Your task to perform on an android device: toggle location history Image 0: 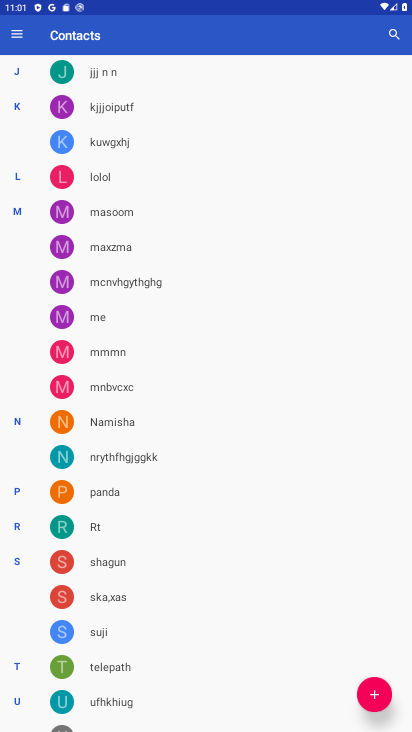
Step 0: press home button
Your task to perform on an android device: toggle location history Image 1: 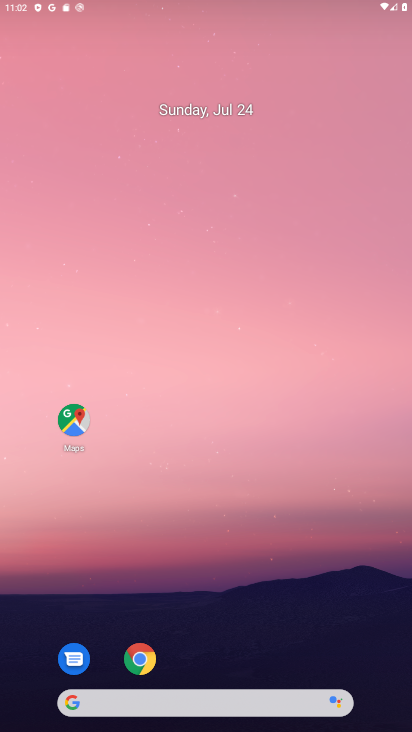
Step 1: drag from (123, 673) to (145, 203)
Your task to perform on an android device: toggle location history Image 2: 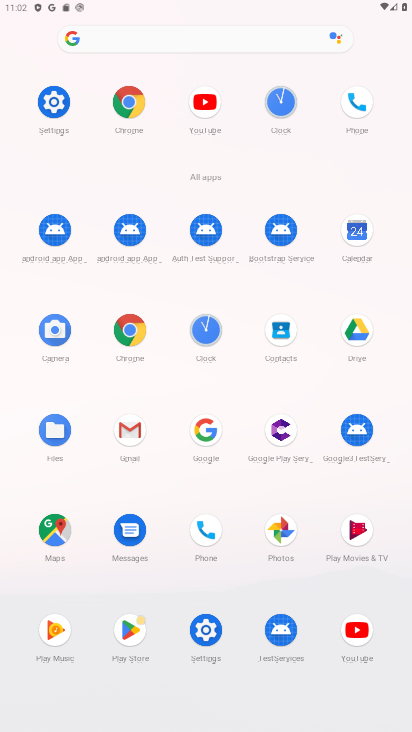
Step 2: click (57, 111)
Your task to perform on an android device: toggle location history Image 3: 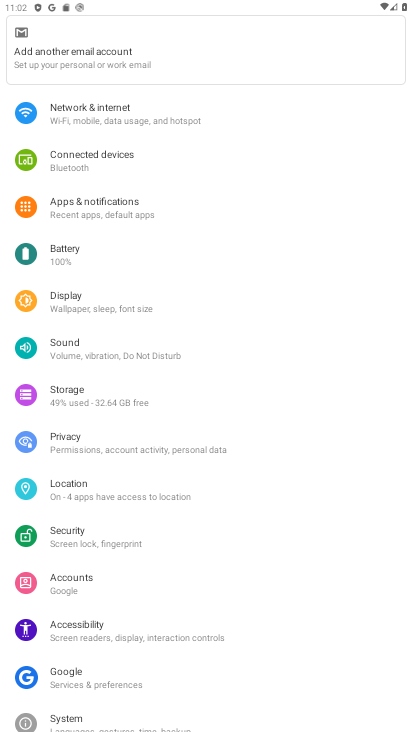
Step 3: click (153, 484)
Your task to perform on an android device: toggle location history Image 4: 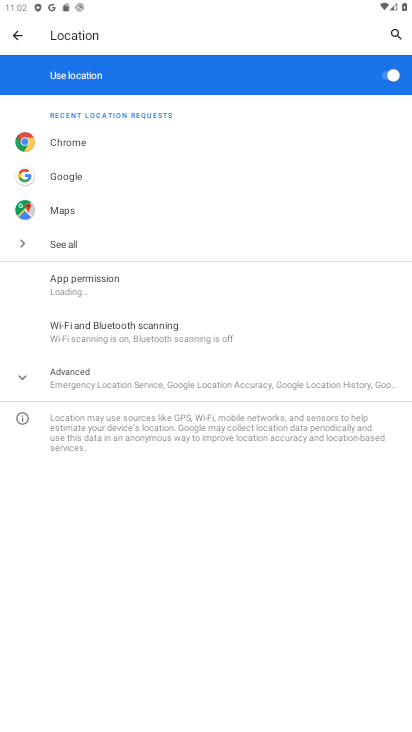
Step 4: click (113, 383)
Your task to perform on an android device: toggle location history Image 5: 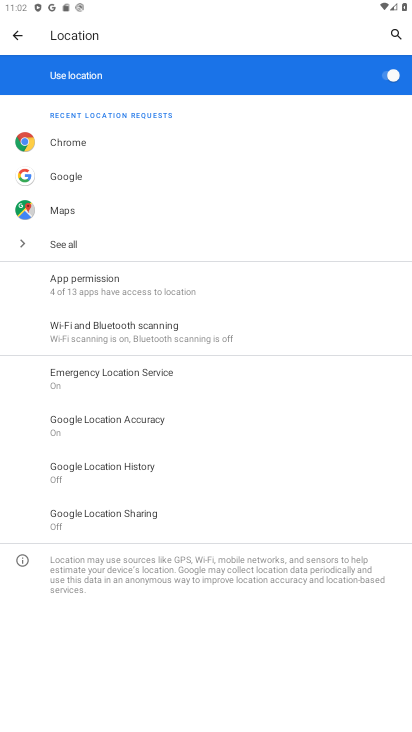
Step 5: click (141, 475)
Your task to perform on an android device: toggle location history Image 6: 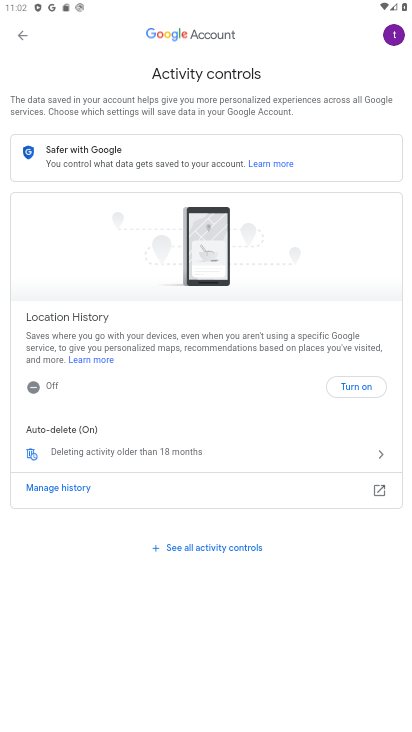
Step 6: click (367, 387)
Your task to perform on an android device: toggle location history Image 7: 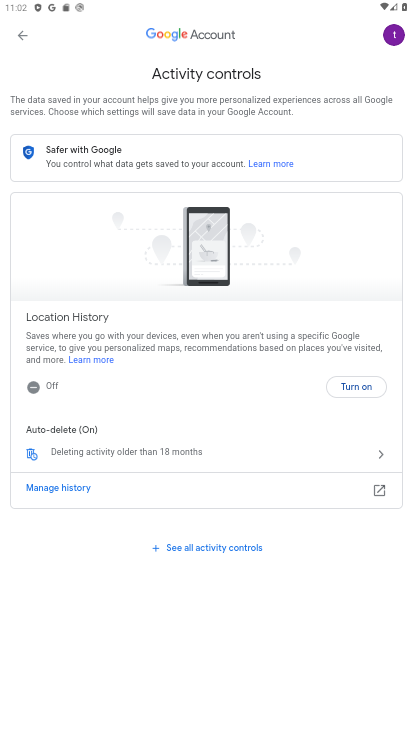
Step 7: click (367, 387)
Your task to perform on an android device: toggle location history Image 8: 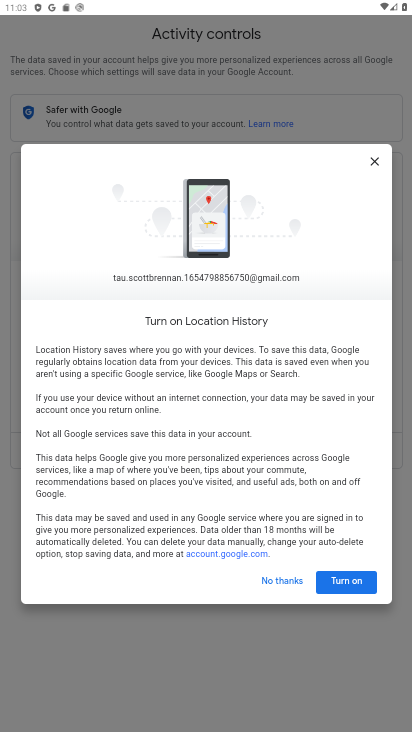
Step 8: click (367, 575)
Your task to perform on an android device: toggle location history Image 9: 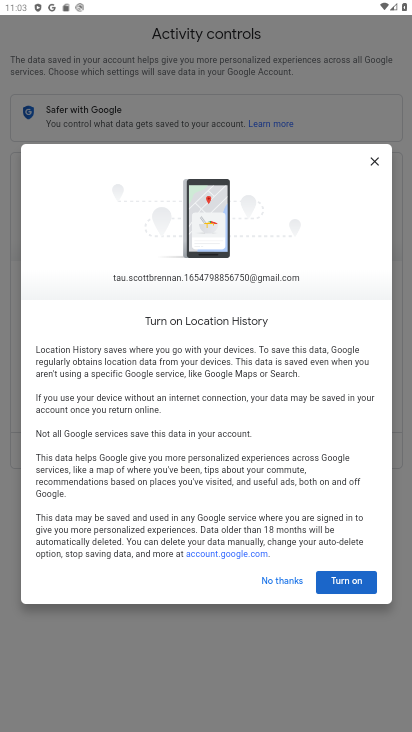
Step 9: task complete